Your task to perform on an android device: turn on the 24-hour format for clock Image 0: 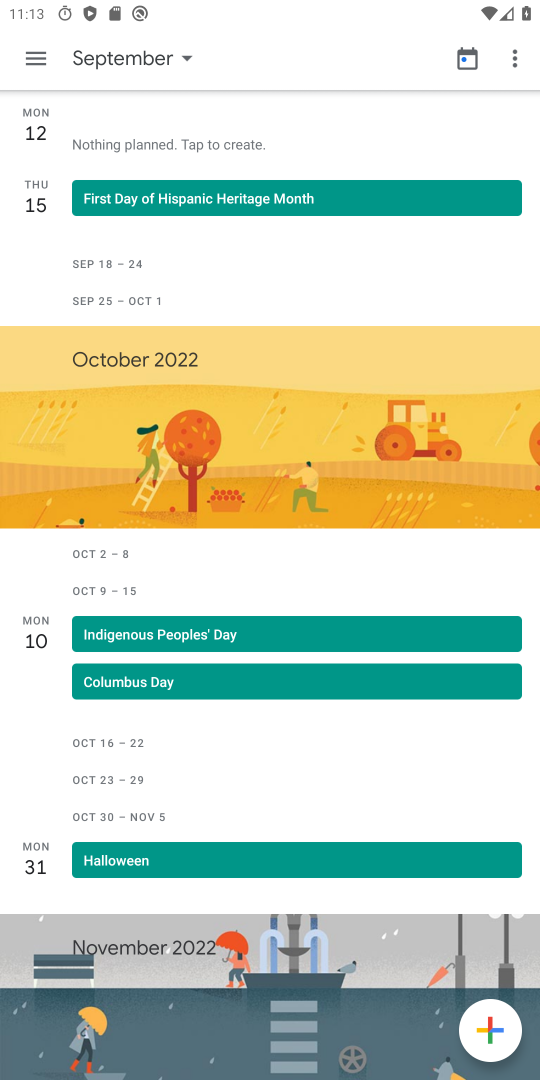
Step 0: press home button
Your task to perform on an android device: turn on the 24-hour format for clock Image 1: 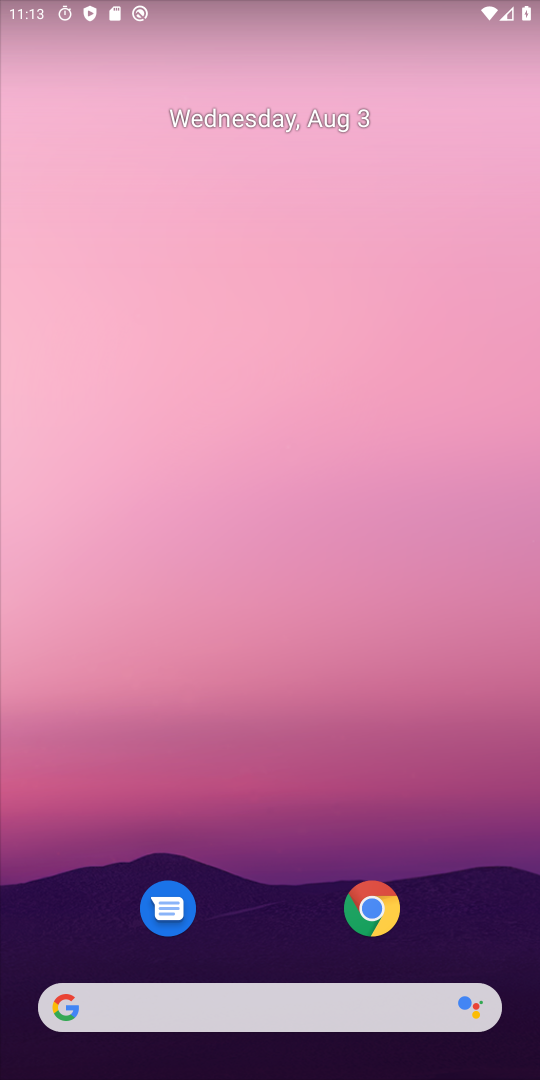
Step 1: drag from (253, 999) to (133, 329)
Your task to perform on an android device: turn on the 24-hour format for clock Image 2: 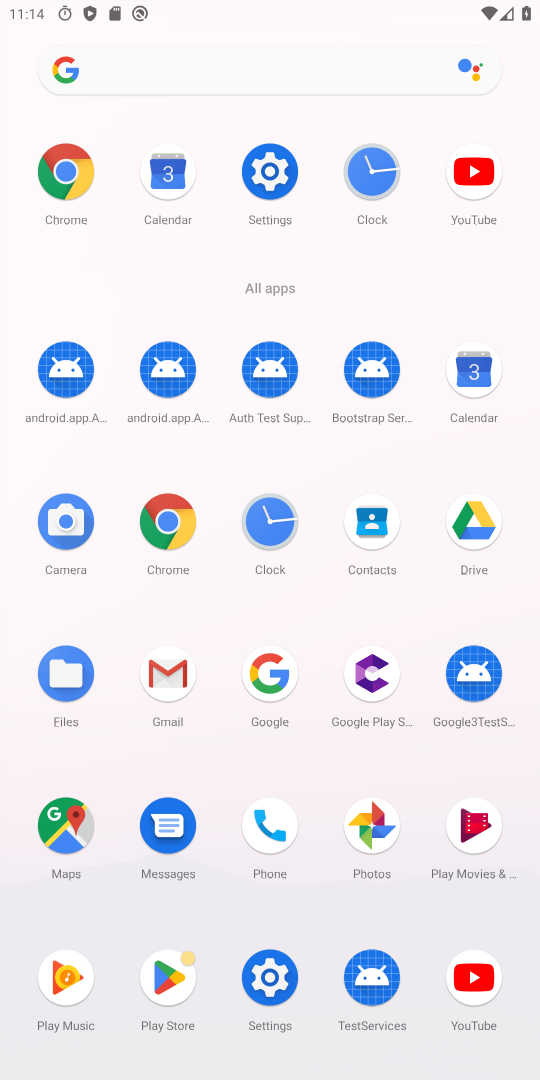
Step 2: click (352, 193)
Your task to perform on an android device: turn on the 24-hour format for clock Image 3: 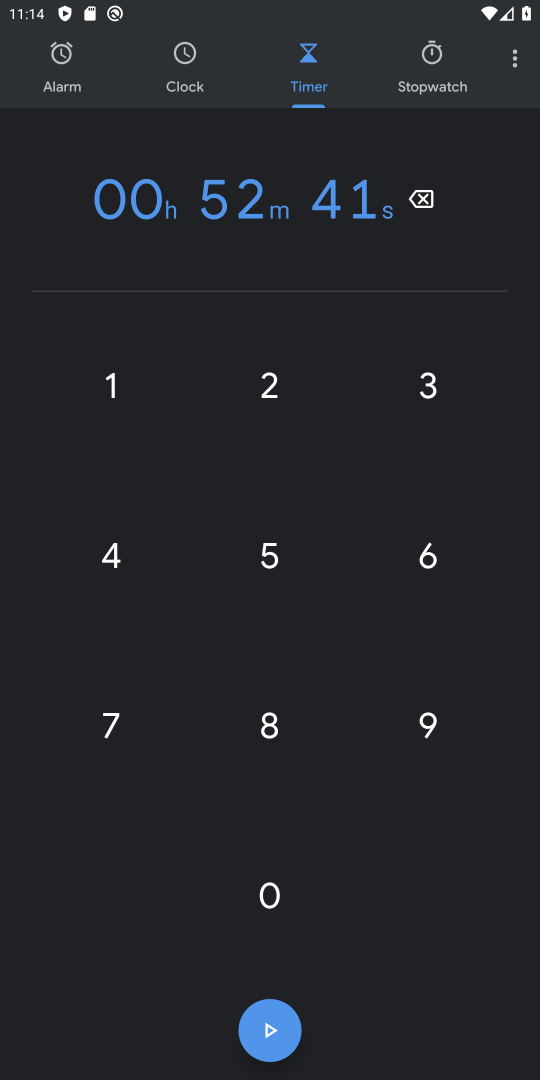
Step 3: click (522, 60)
Your task to perform on an android device: turn on the 24-hour format for clock Image 4: 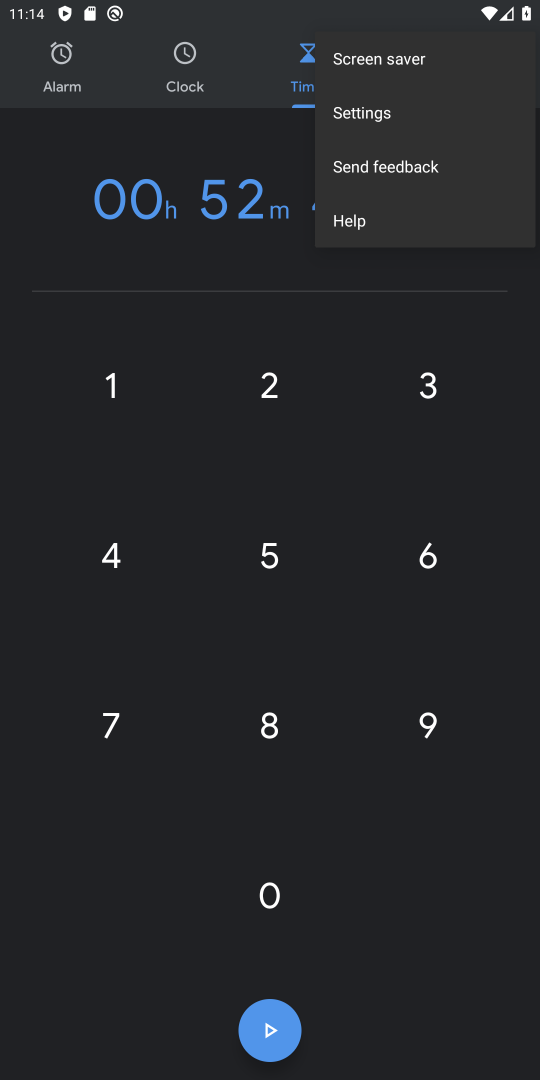
Step 4: click (401, 111)
Your task to perform on an android device: turn on the 24-hour format for clock Image 5: 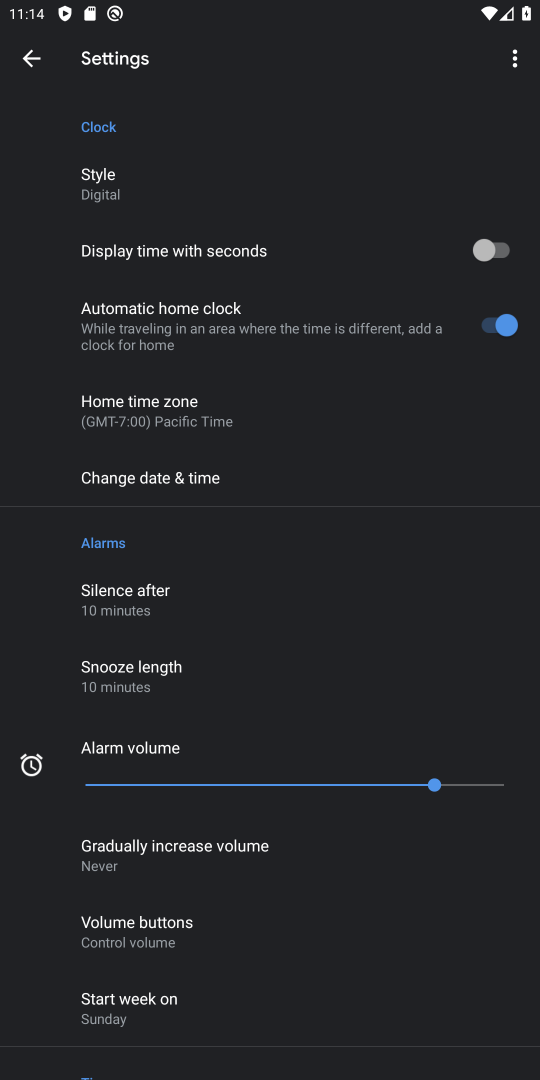
Step 5: click (146, 477)
Your task to perform on an android device: turn on the 24-hour format for clock Image 6: 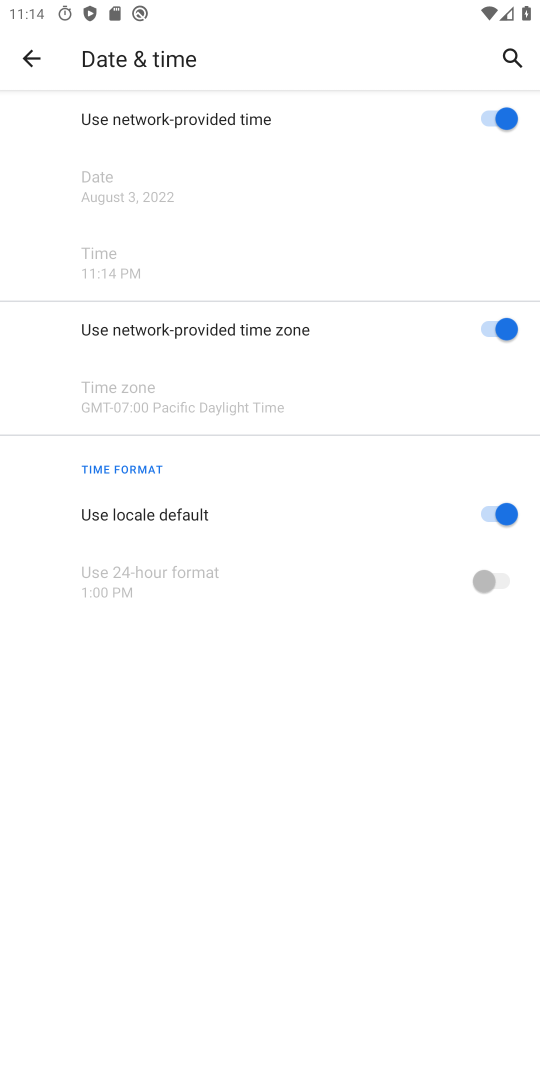
Step 6: click (491, 493)
Your task to perform on an android device: turn on the 24-hour format for clock Image 7: 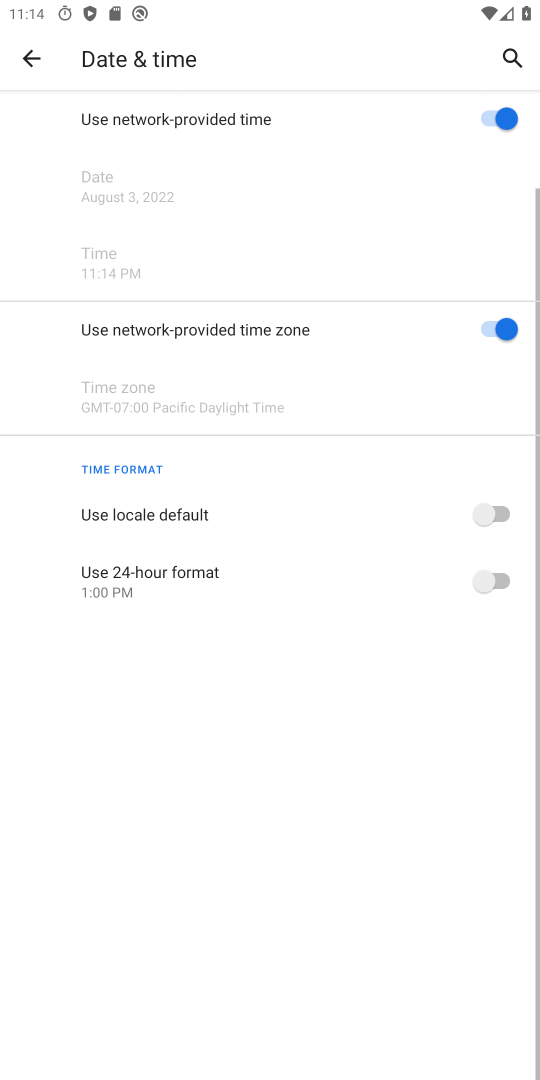
Step 7: click (490, 586)
Your task to perform on an android device: turn on the 24-hour format for clock Image 8: 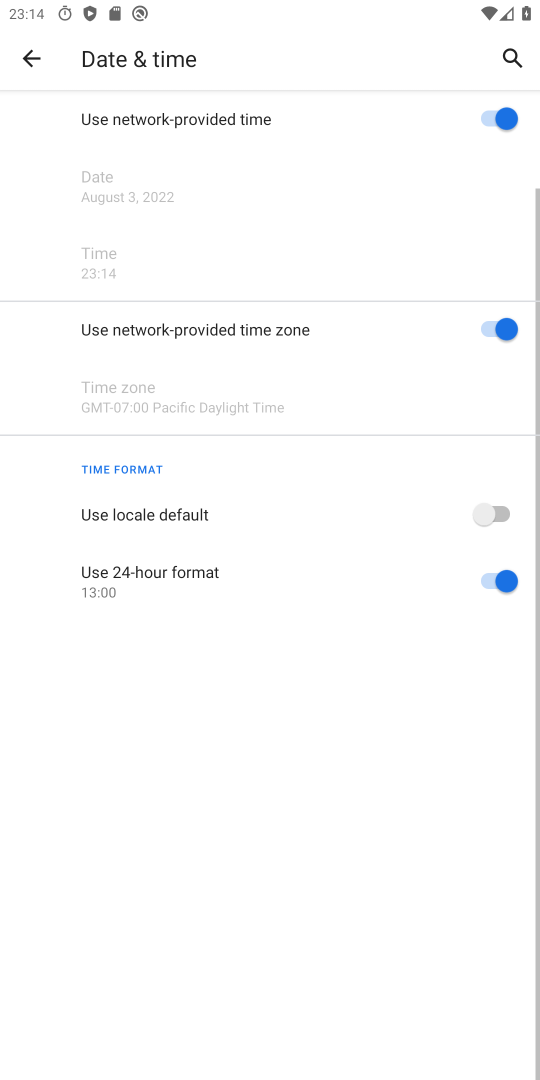
Step 8: task complete